Your task to perform on an android device: Do I have any events this weekend? Image 0: 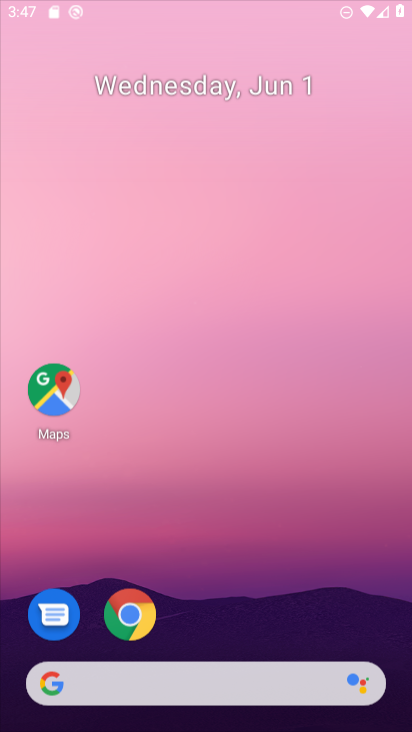
Step 0: press home button
Your task to perform on an android device: Do I have any events this weekend? Image 1: 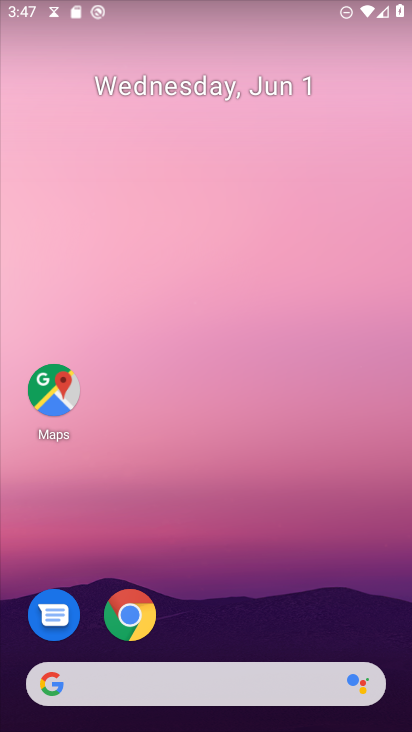
Step 1: drag from (231, 636) to (261, 134)
Your task to perform on an android device: Do I have any events this weekend? Image 2: 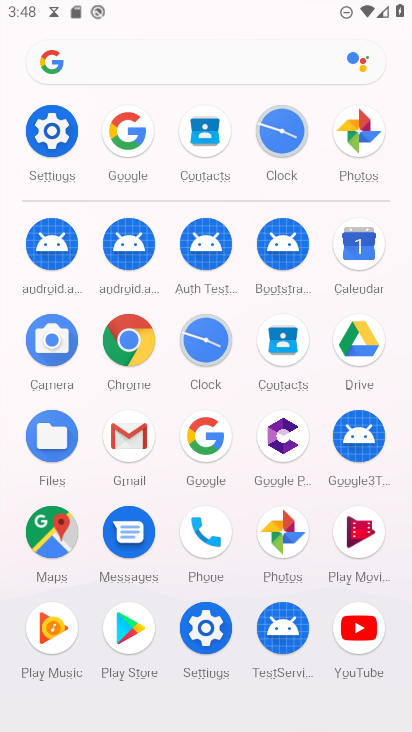
Step 2: click (355, 238)
Your task to perform on an android device: Do I have any events this weekend? Image 3: 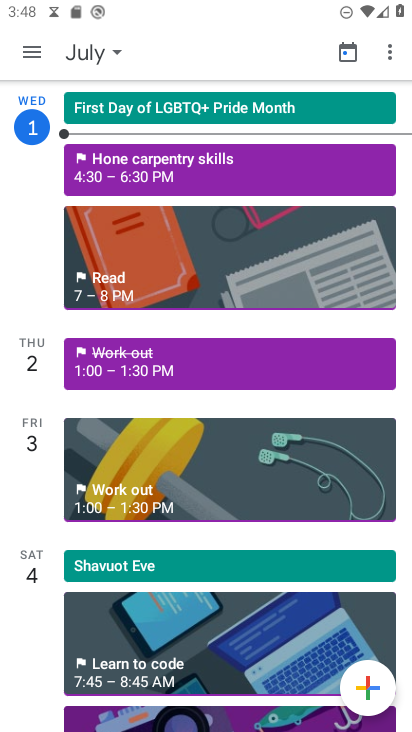
Step 3: click (32, 52)
Your task to perform on an android device: Do I have any events this weekend? Image 4: 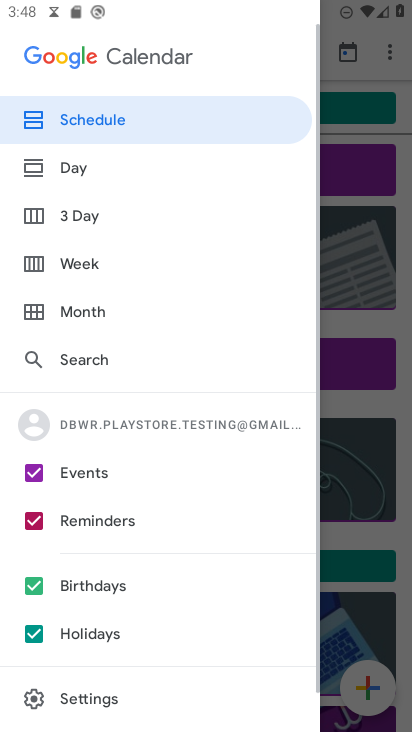
Step 4: click (34, 626)
Your task to perform on an android device: Do I have any events this weekend? Image 5: 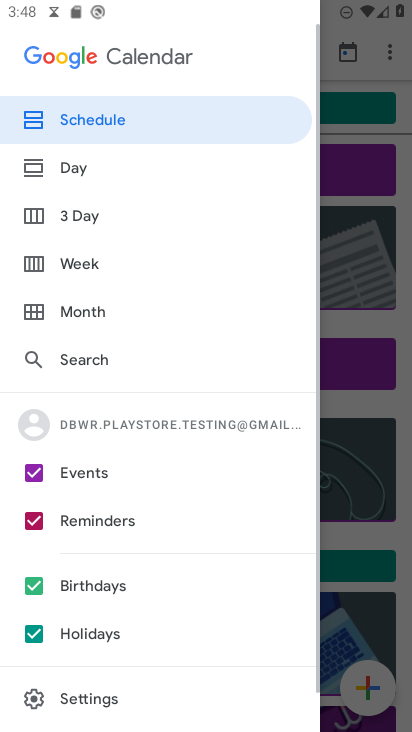
Step 5: click (32, 582)
Your task to perform on an android device: Do I have any events this weekend? Image 6: 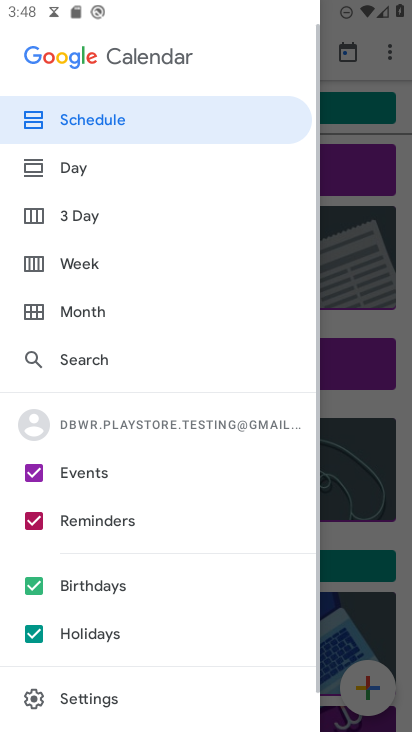
Step 6: click (29, 514)
Your task to perform on an android device: Do I have any events this weekend? Image 7: 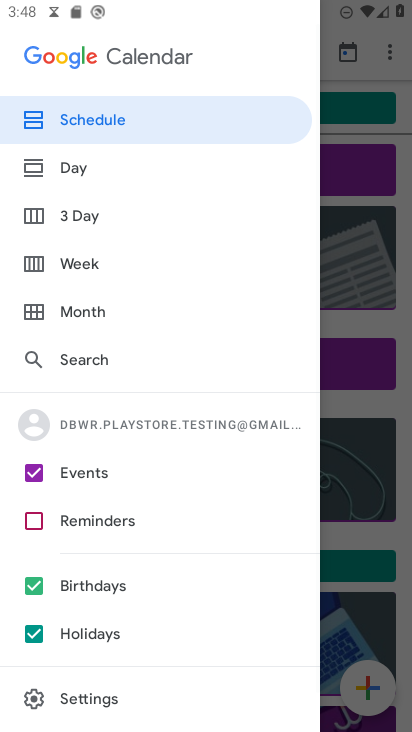
Step 7: click (31, 581)
Your task to perform on an android device: Do I have any events this weekend? Image 8: 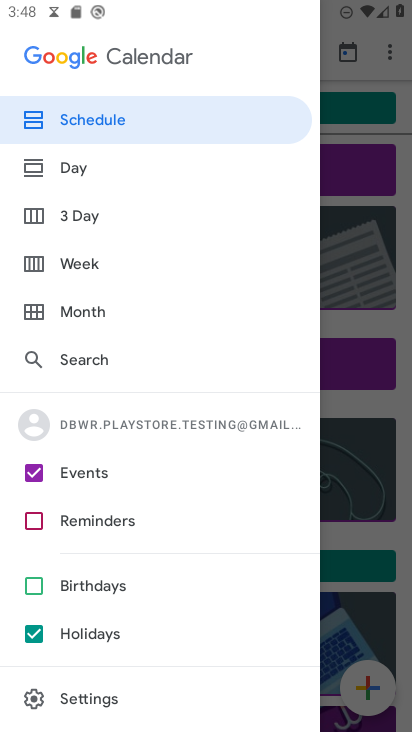
Step 8: click (32, 631)
Your task to perform on an android device: Do I have any events this weekend? Image 9: 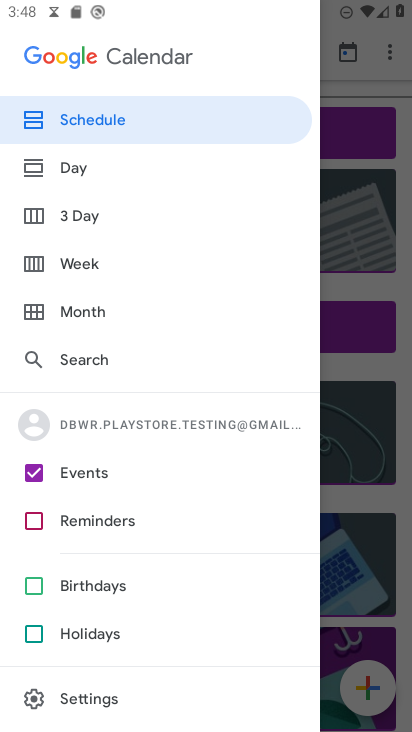
Step 9: click (64, 261)
Your task to perform on an android device: Do I have any events this weekend? Image 10: 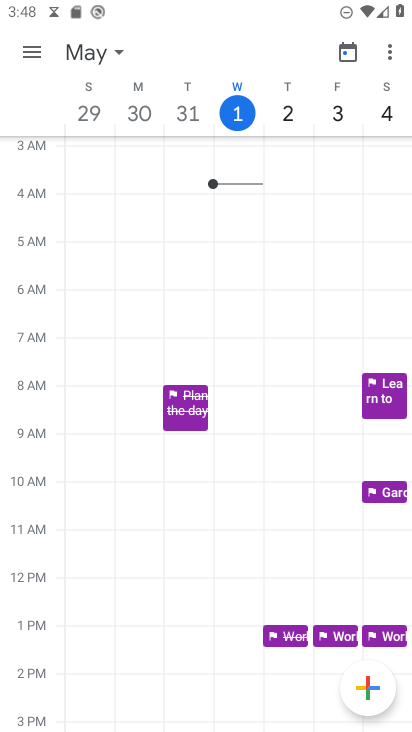
Step 10: click (235, 114)
Your task to perform on an android device: Do I have any events this weekend? Image 11: 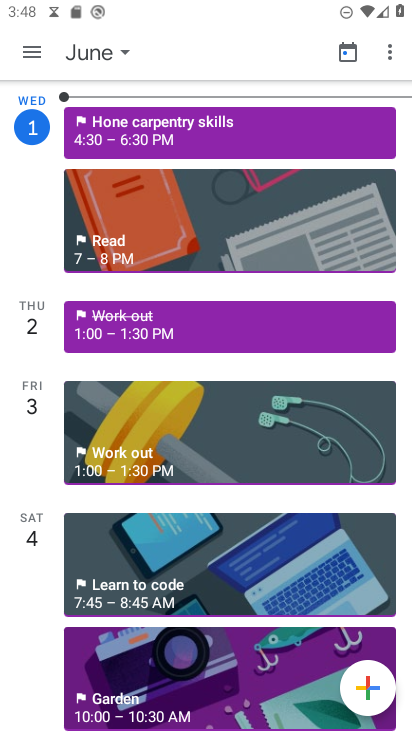
Step 11: task complete